Your task to perform on an android device: open chrome privacy settings Image 0: 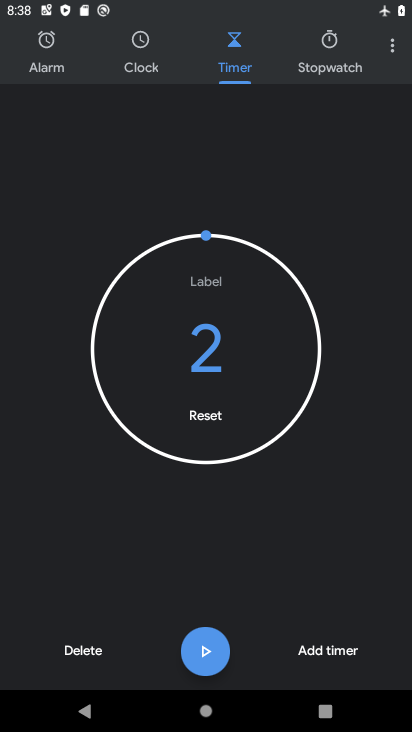
Step 0: press home button
Your task to perform on an android device: open chrome privacy settings Image 1: 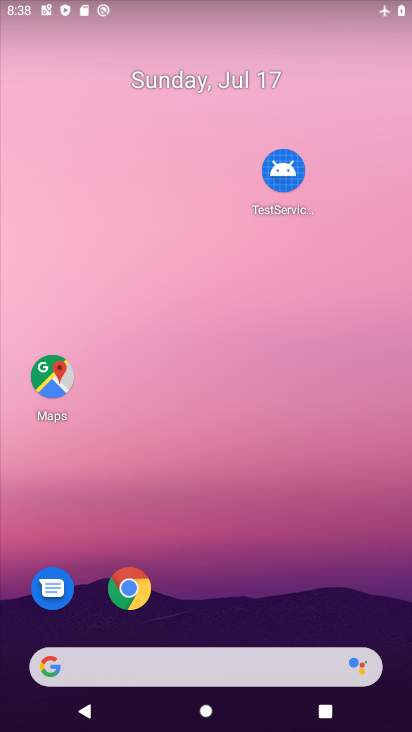
Step 1: drag from (259, 636) to (331, 103)
Your task to perform on an android device: open chrome privacy settings Image 2: 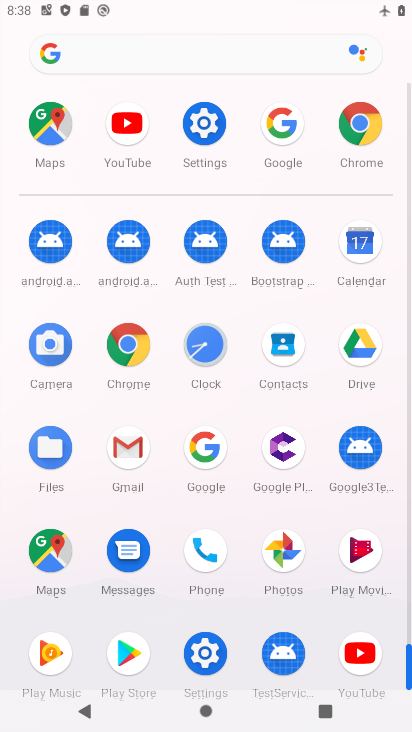
Step 2: click (371, 145)
Your task to perform on an android device: open chrome privacy settings Image 3: 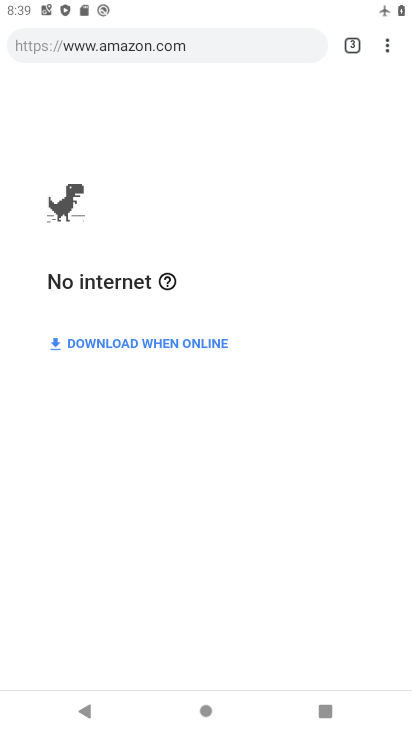
Step 3: click (392, 48)
Your task to perform on an android device: open chrome privacy settings Image 4: 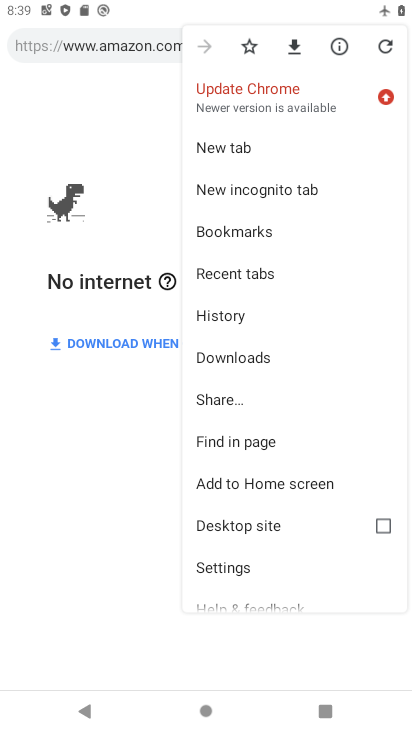
Step 4: click (228, 562)
Your task to perform on an android device: open chrome privacy settings Image 5: 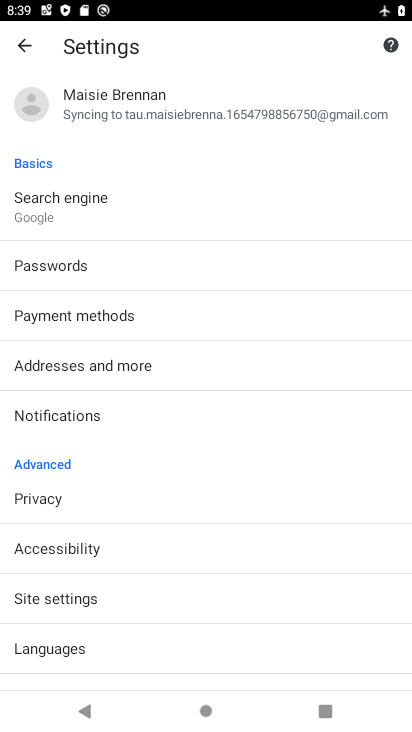
Step 5: click (50, 501)
Your task to perform on an android device: open chrome privacy settings Image 6: 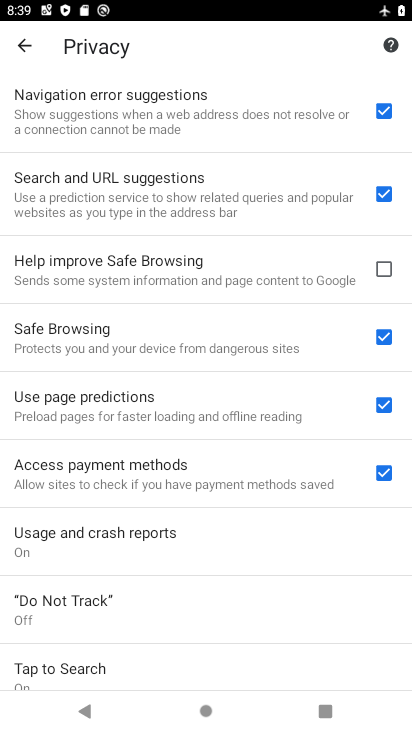
Step 6: task complete